Your task to perform on an android device: open app "McDonald's" (install if not already installed) and enter user name: "copes@yahoo.com" and password: "Rhenish" Image 0: 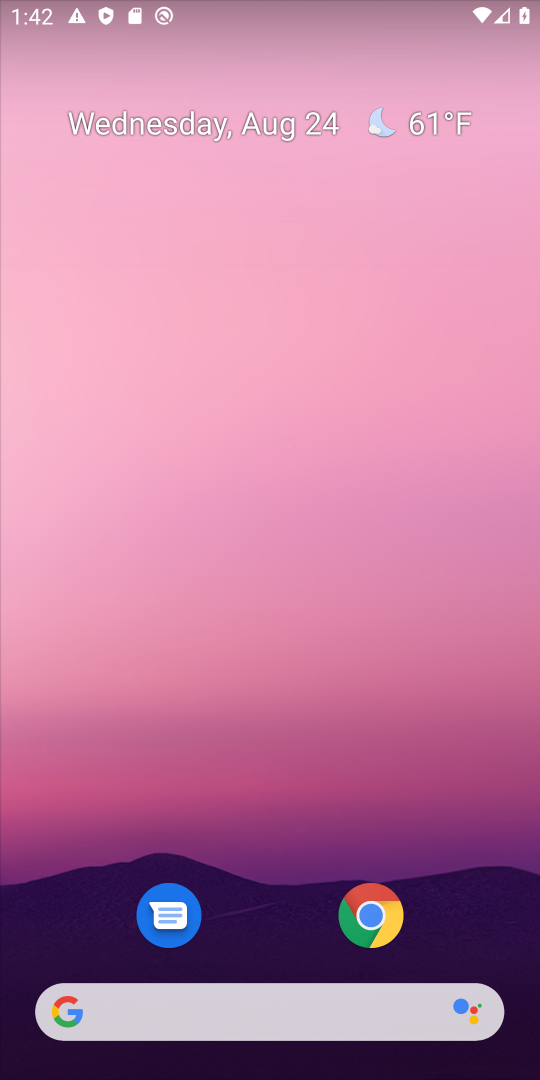
Step 0: drag from (245, 872) to (253, 294)
Your task to perform on an android device: open app "McDonald's" (install if not already installed) and enter user name: "copes@yahoo.com" and password: "Rhenish" Image 1: 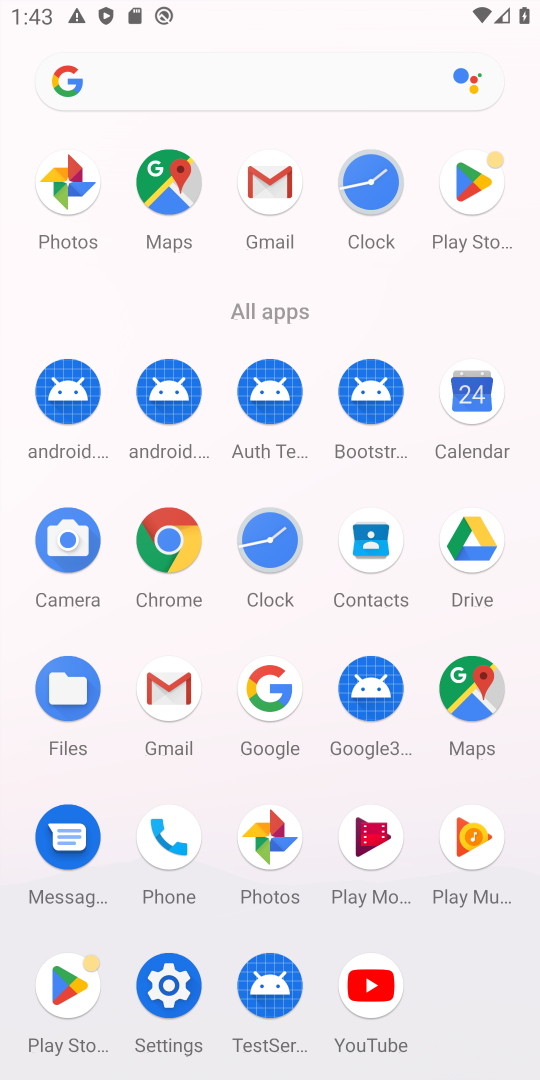
Step 1: click (460, 199)
Your task to perform on an android device: open app "McDonald's" (install if not already installed) and enter user name: "copes@yahoo.com" and password: "Rhenish" Image 2: 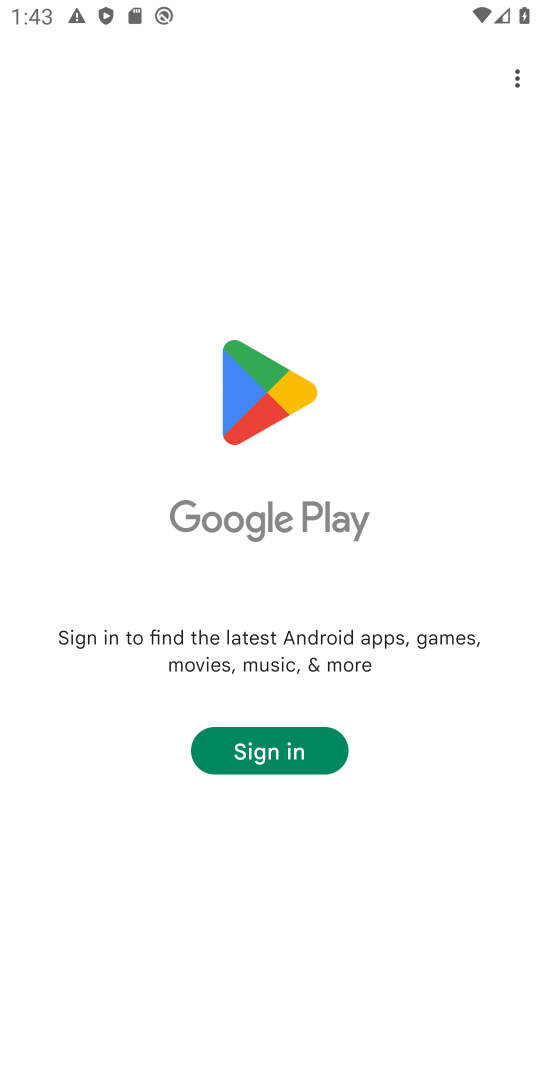
Step 2: task complete